Your task to perform on an android device: check storage Image 0: 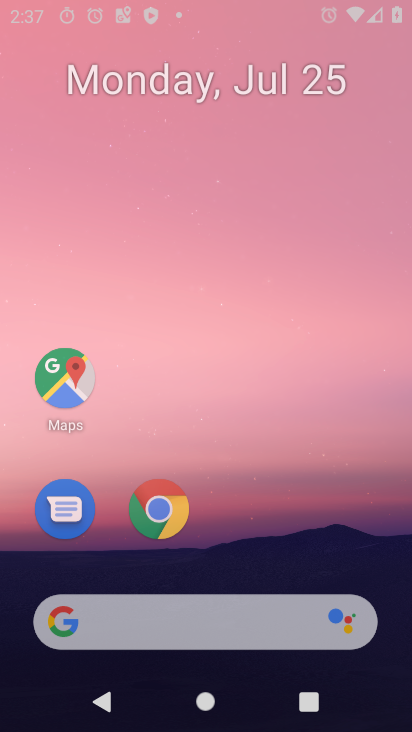
Step 0: press home button
Your task to perform on an android device: check storage Image 1: 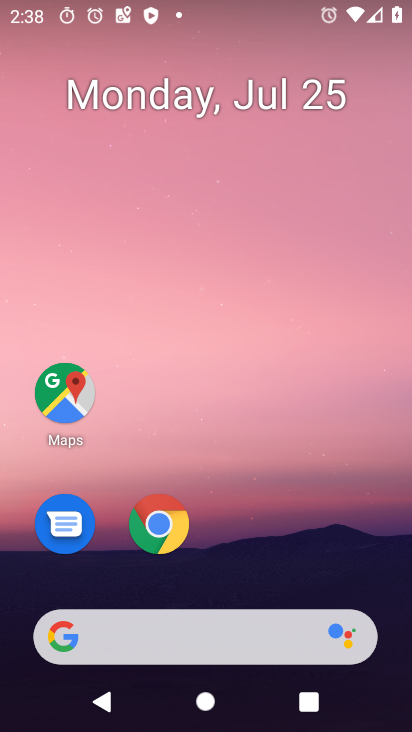
Step 1: drag from (235, 595) to (229, 248)
Your task to perform on an android device: check storage Image 2: 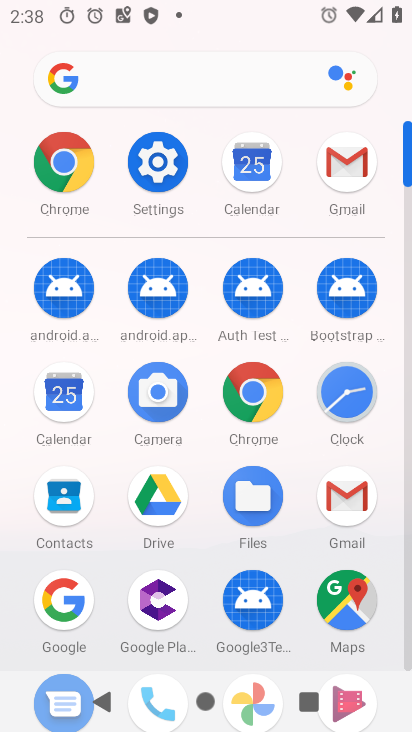
Step 2: click (157, 171)
Your task to perform on an android device: check storage Image 3: 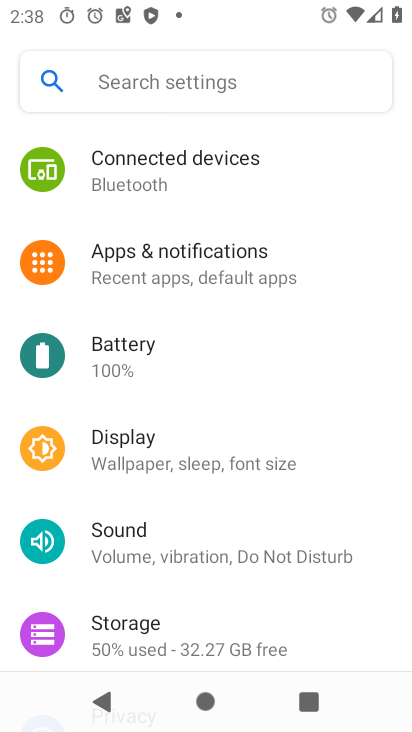
Step 3: click (154, 643)
Your task to perform on an android device: check storage Image 4: 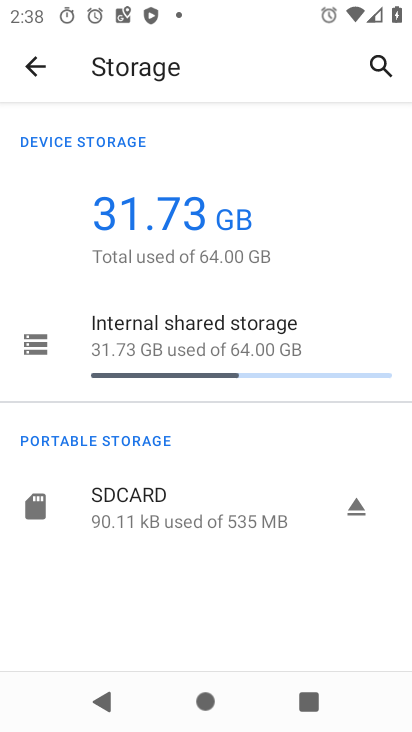
Step 4: task complete